Your task to perform on an android device: toggle data saver in the chrome app Image 0: 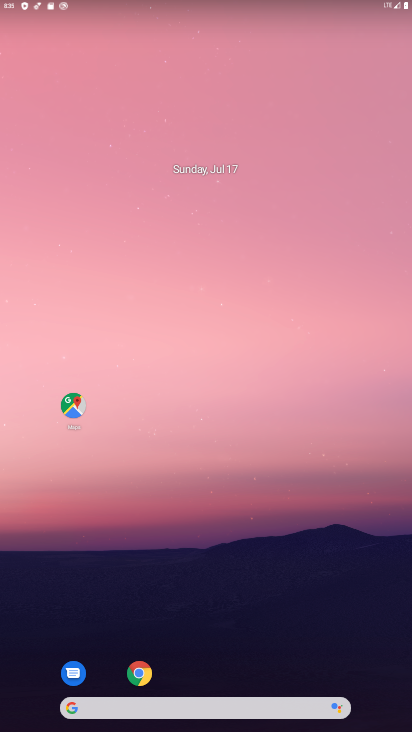
Step 0: click (134, 678)
Your task to perform on an android device: toggle data saver in the chrome app Image 1: 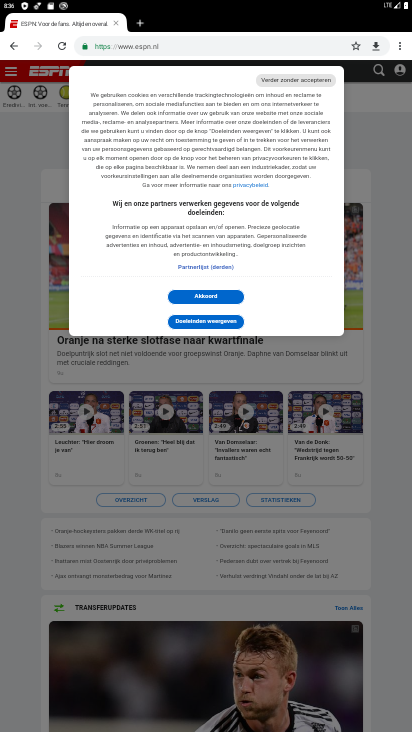
Step 1: click (404, 51)
Your task to perform on an android device: toggle data saver in the chrome app Image 2: 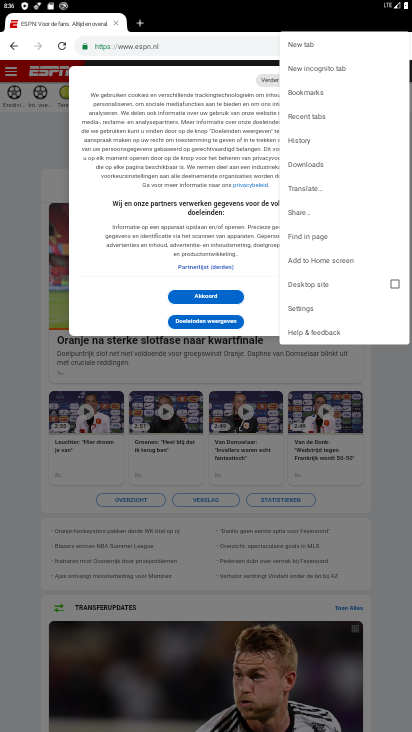
Step 2: click (321, 310)
Your task to perform on an android device: toggle data saver in the chrome app Image 3: 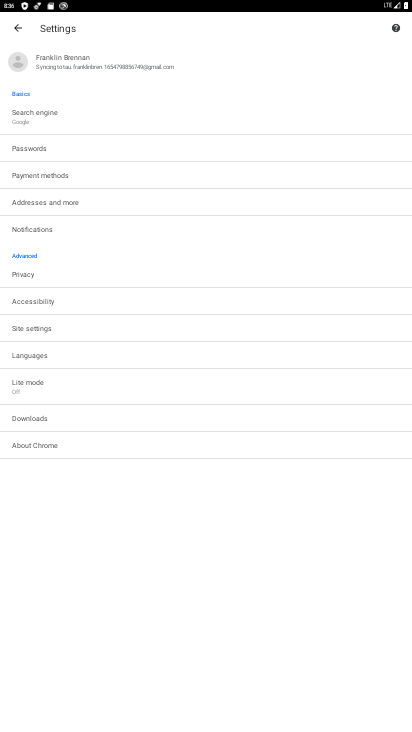
Step 3: click (60, 381)
Your task to perform on an android device: toggle data saver in the chrome app Image 4: 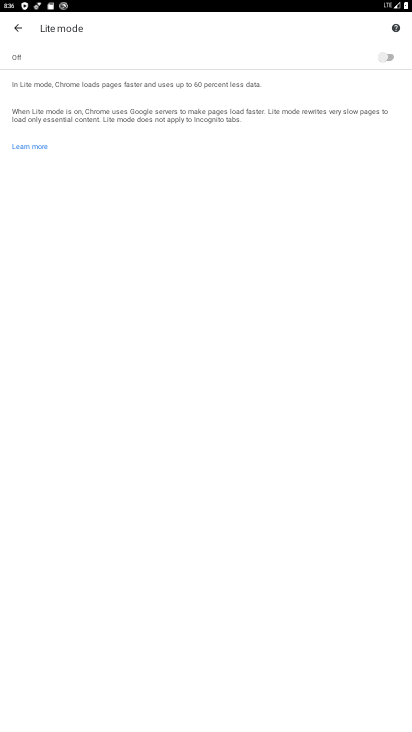
Step 4: click (388, 51)
Your task to perform on an android device: toggle data saver in the chrome app Image 5: 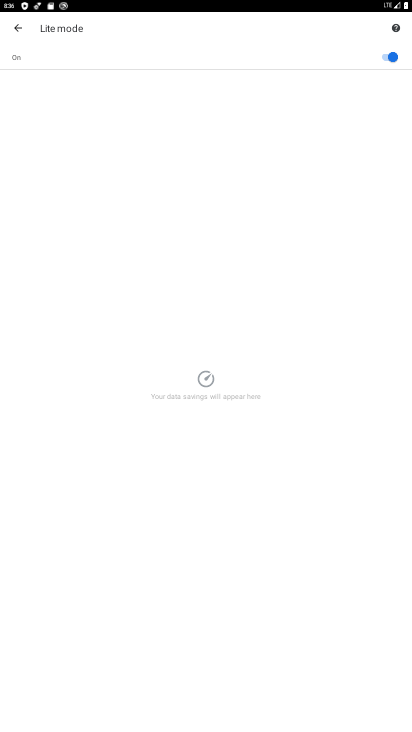
Step 5: task complete